Your task to perform on an android device: What's the weather going to be this weekend? Image 0: 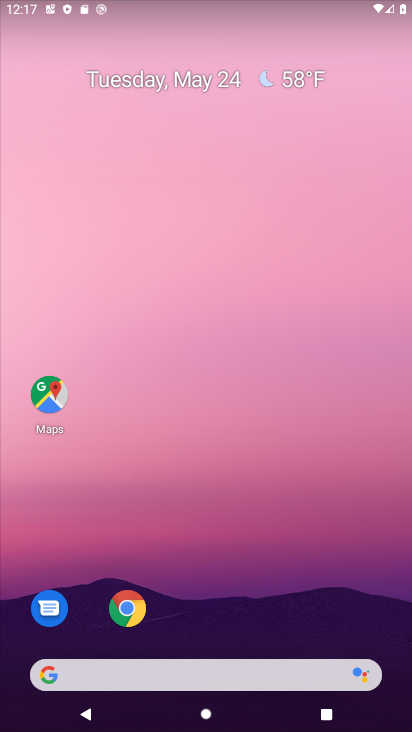
Step 0: drag from (243, 696) to (266, 239)
Your task to perform on an android device: What's the weather going to be this weekend? Image 1: 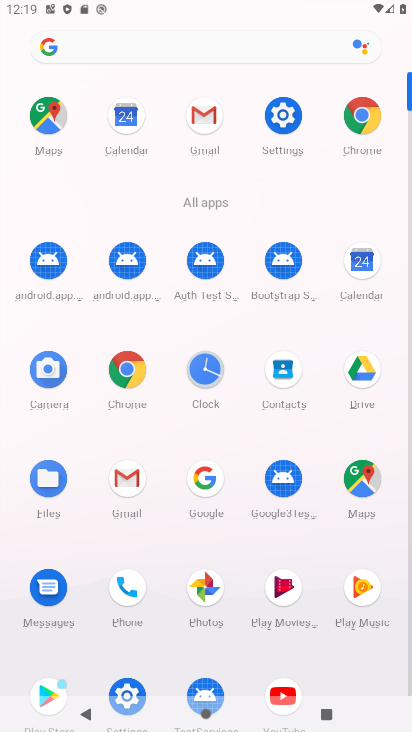
Step 1: click (74, 43)
Your task to perform on an android device: What's the weather going to be this weekend? Image 2: 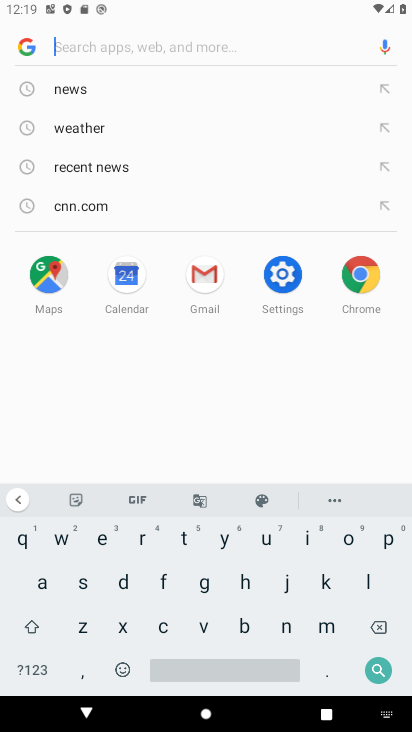
Step 2: click (97, 129)
Your task to perform on an android device: What's the weather going to be this weekend? Image 3: 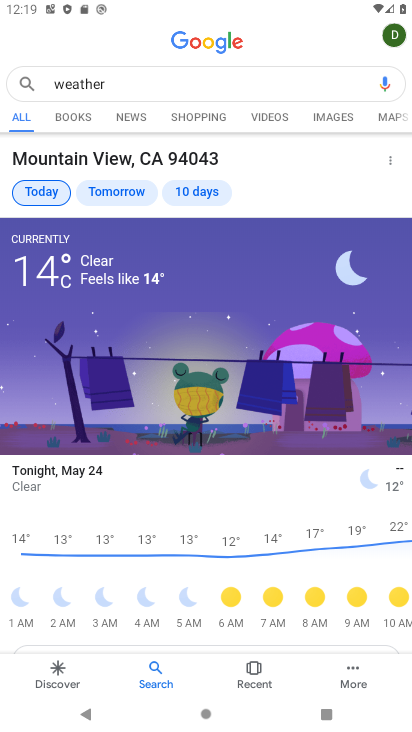
Step 3: task complete